Your task to perform on an android device: Open calendar and show me the first week of next month Image 0: 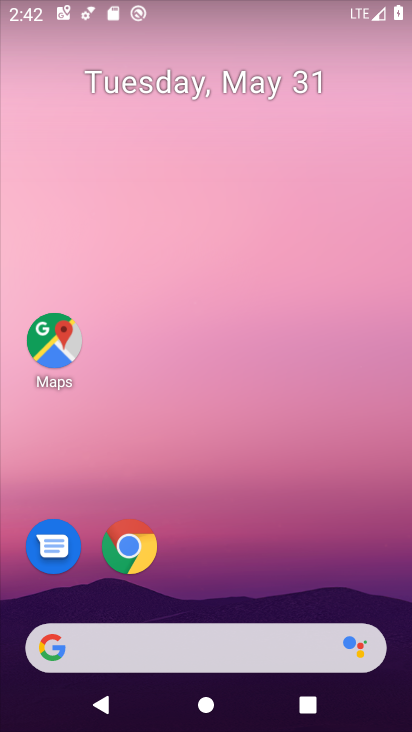
Step 0: drag from (269, 356) to (110, 18)
Your task to perform on an android device: Open calendar and show me the first week of next month Image 1: 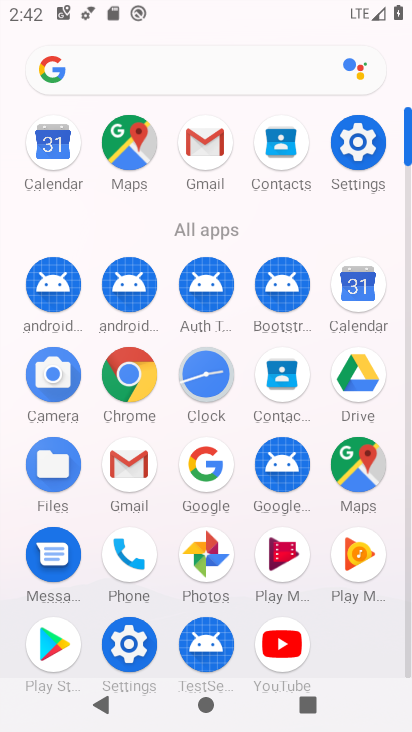
Step 1: click (364, 298)
Your task to perform on an android device: Open calendar and show me the first week of next month Image 2: 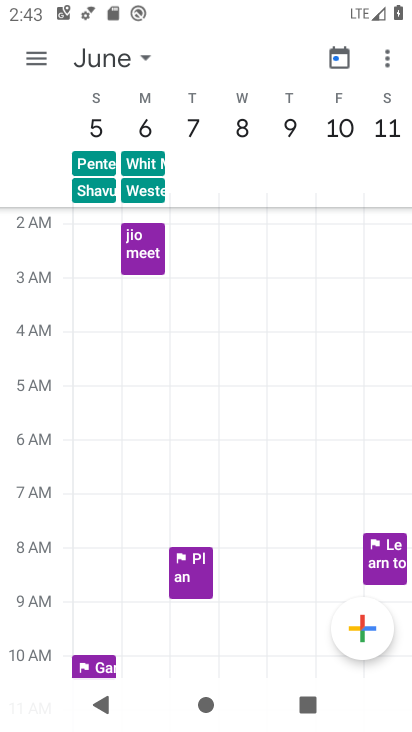
Step 2: click (107, 49)
Your task to perform on an android device: Open calendar and show me the first week of next month Image 3: 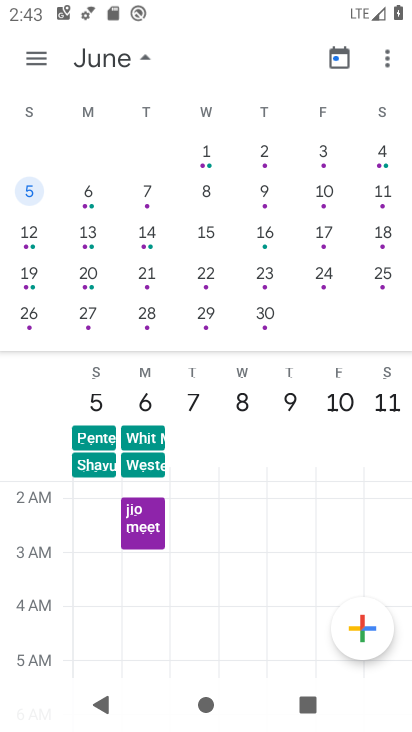
Step 3: click (208, 147)
Your task to perform on an android device: Open calendar and show me the first week of next month Image 4: 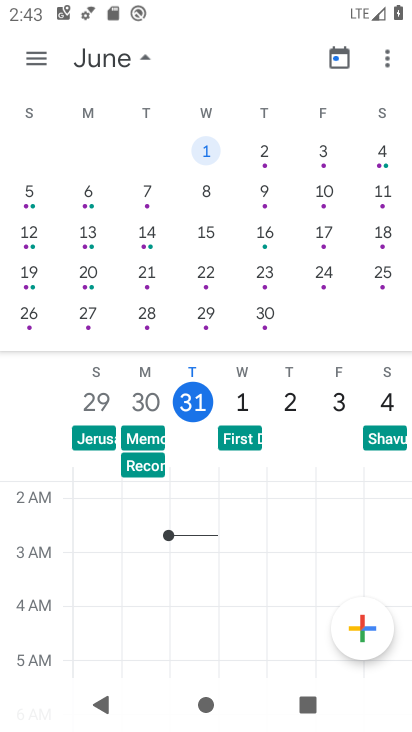
Step 4: task complete